Your task to perform on an android device: show emergency info Image 0: 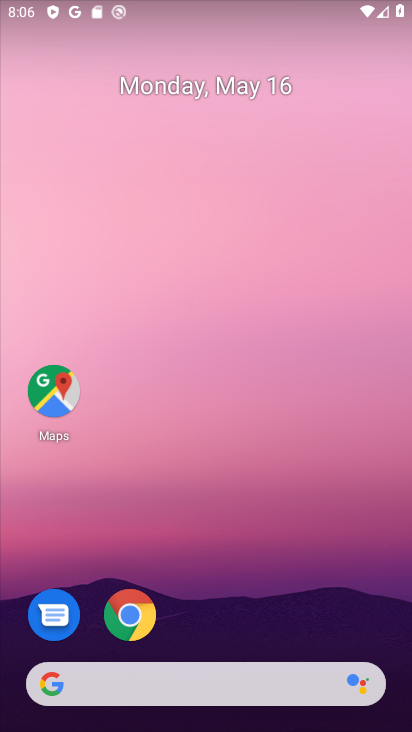
Step 0: press home button
Your task to perform on an android device: show emergency info Image 1: 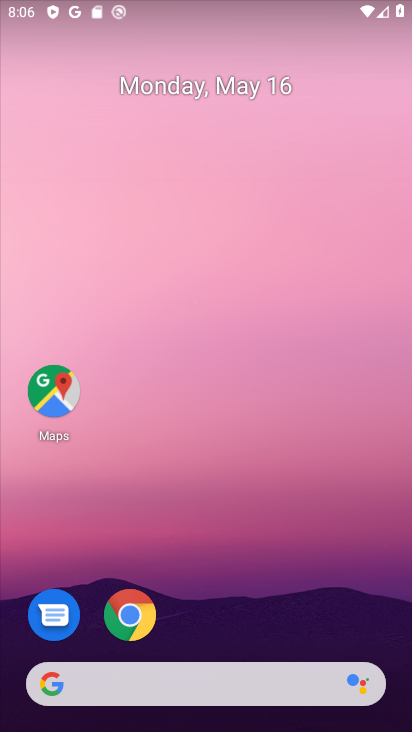
Step 1: drag from (18, 601) to (247, 67)
Your task to perform on an android device: show emergency info Image 2: 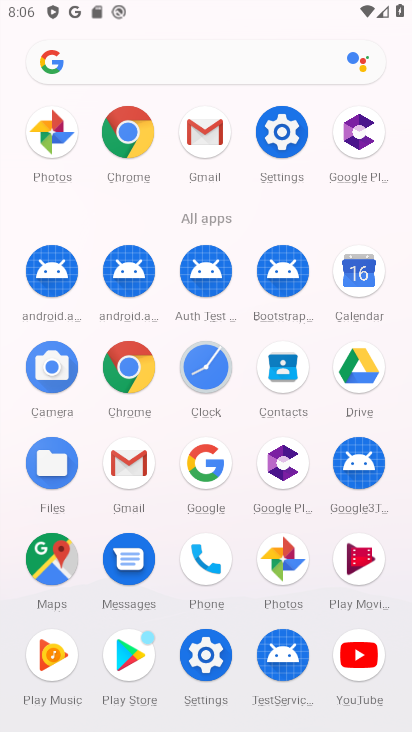
Step 2: click (279, 137)
Your task to perform on an android device: show emergency info Image 3: 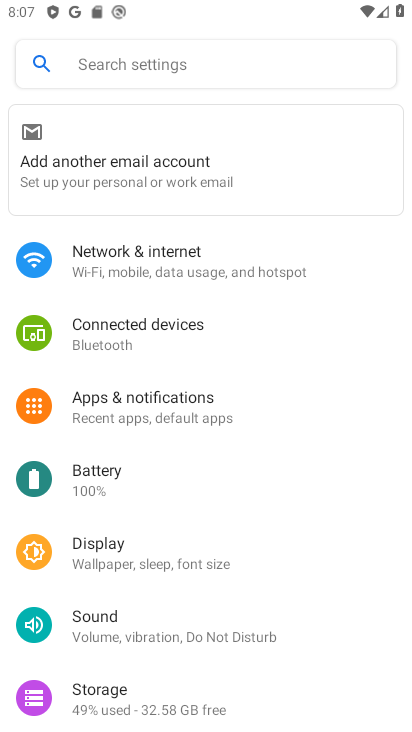
Step 3: drag from (115, 645) to (272, 290)
Your task to perform on an android device: show emergency info Image 4: 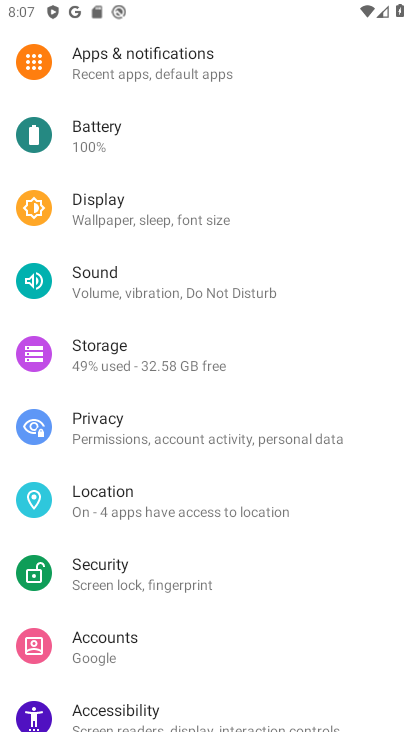
Step 4: drag from (57, 639) to (295, 223)
Your task to perform on an android device: show emergency info Image 5: 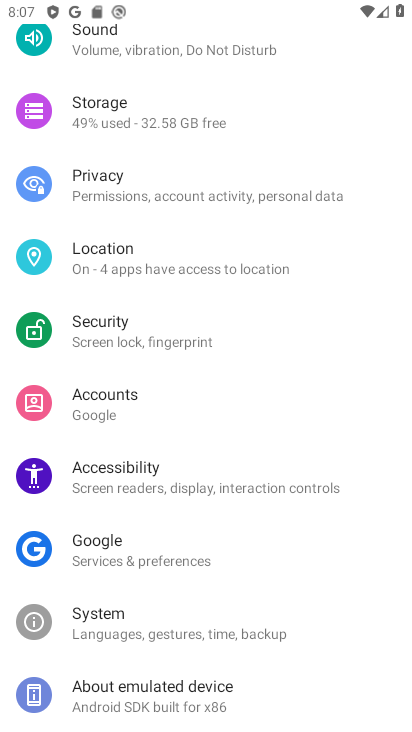
Step 5: click (87, 691)
Your task to perform on an android device: show emergency info Image 6: 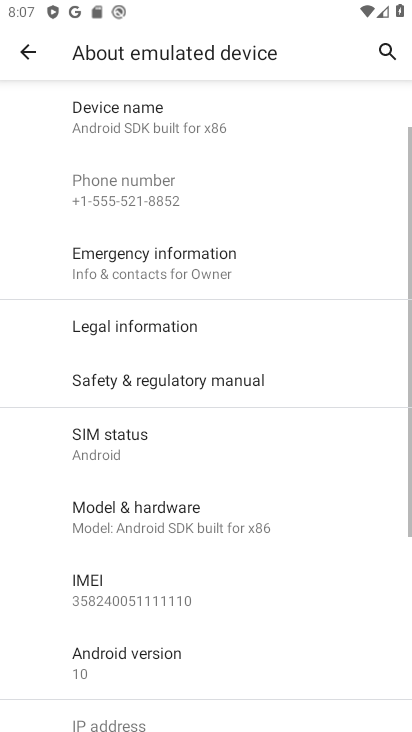
Step 6: click (103, 262)
Your task to perform on an android device: show emergency info Image 7: 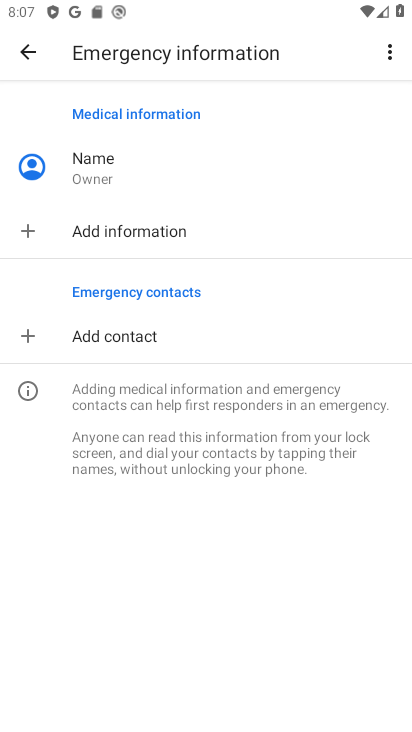
Step 7: task complete